Your task to perform on an android device: check storage Image 0: 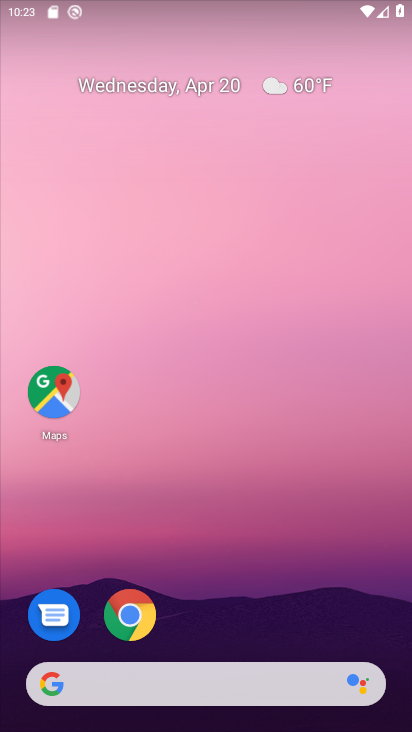
Step 0: drag from (372, 623) to (335, 213)
Your task to perform on an android device: check storage Image 1: 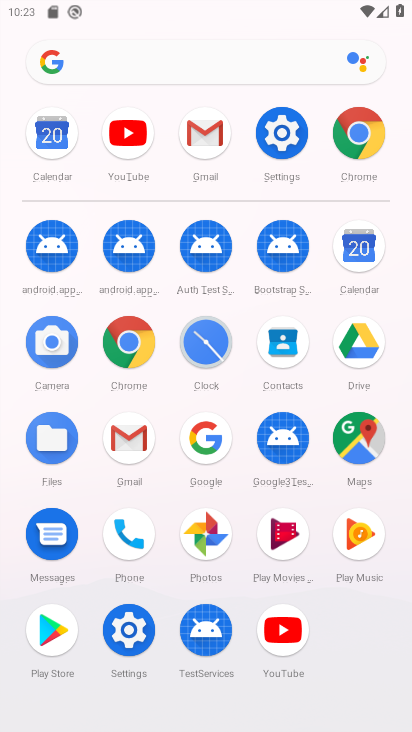
Step 1: click (122, 635)
Your task to perform on an android device: check storage Image 2: 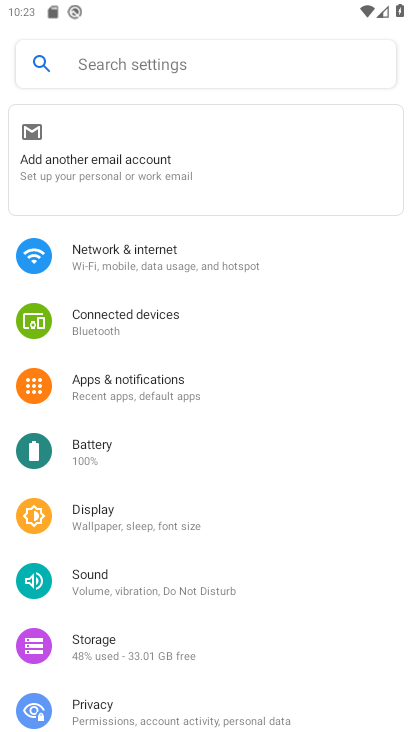
Step 2: drag from (182, 674) to (232, 432)
Your task to perform on an android device: check storage Image 3: 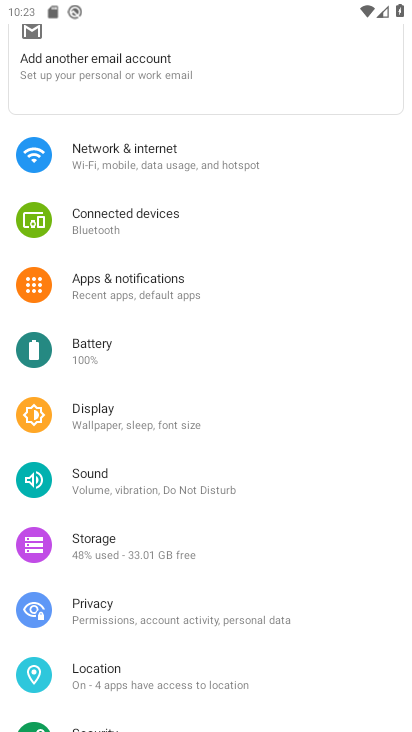
Step 3: click (144, 543)
Your task to perform on an android device: check storage Image 4: 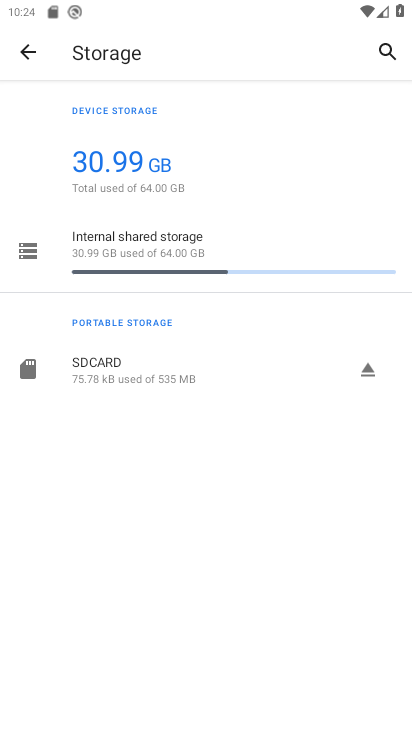
Step 4: click (14, 255)
Your task to perform on an android device: check storage Image 5: 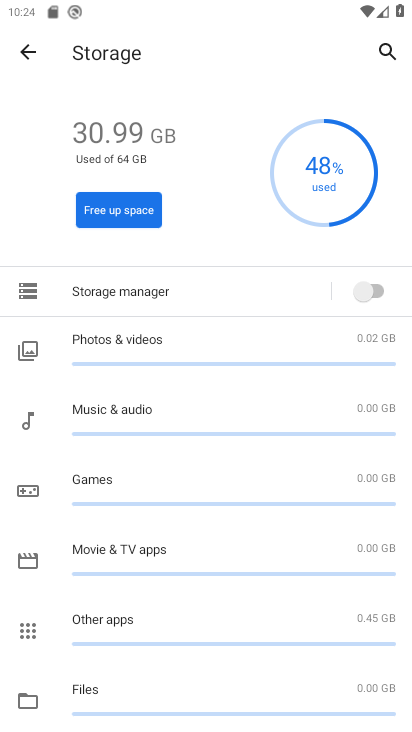
Step 5: task complete